Your task to perform on an android device: Search for lenovo thinkpad on ebay.com, select the first entry, and add it to the cart. Image 0: 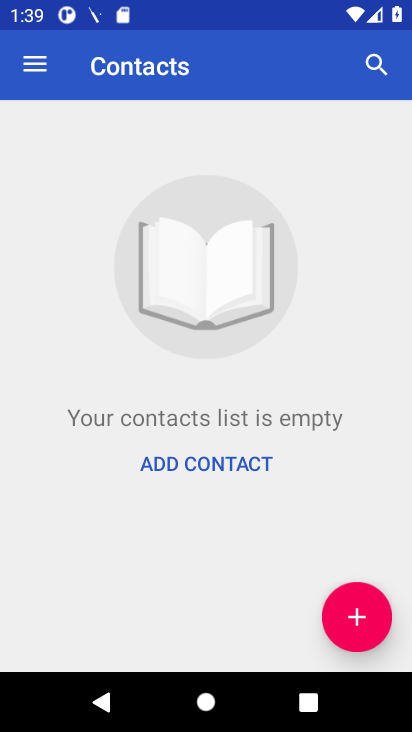
Step 0: press home button
Your task to perform on an android device: Search for lenovo thinkpad on ebay.com, select the first entry, and add it to the cart. Image 1: 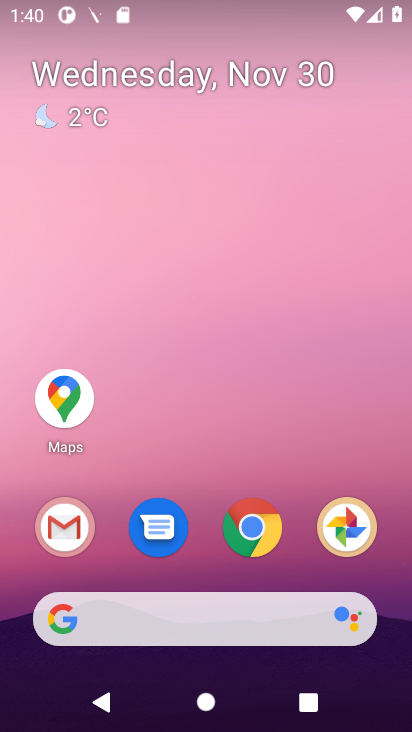
Step 1: click (245, 546)
Your task to perform on an android device: Search for lenovo thinkpad on ebay.com, select the first entry, and add it to the cart. Image 2: 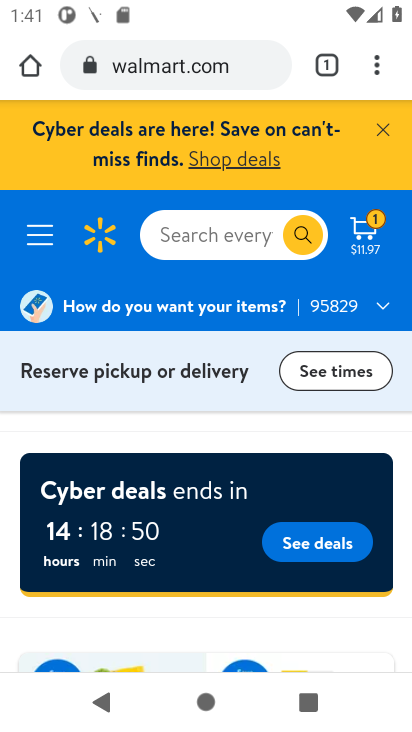
Step 2: click (169, 229)
Your task to perform on an android device: Search for lenovo thinkpad on ebay.com, select the first entry, and add it to the cart. Image 3: 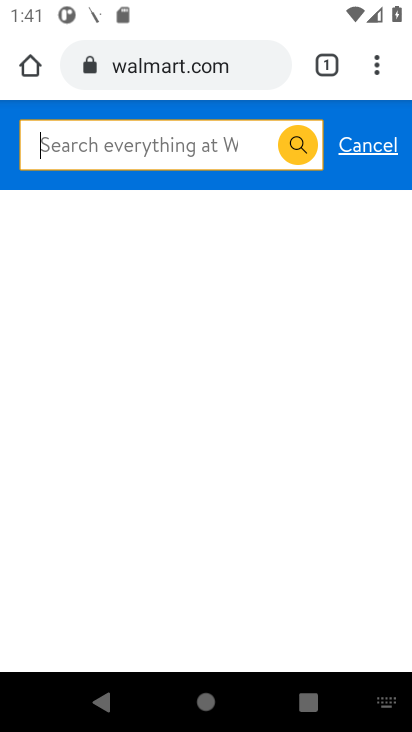
Step 3: type "lenovo thinkpad"
Your task to perform on an android device: Search for lenovo thinkpad on ebay.com, select the first entry, and add it to the cart. Image 4: 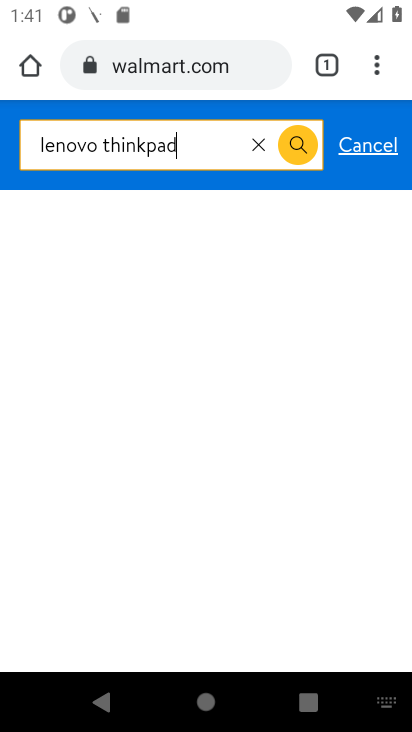
Step 4: click (296, 151)
Your task to perform on an android device: Search for lenovo thinkpad on ebay.com, select the first entry, and add it to the cart. Image 5: 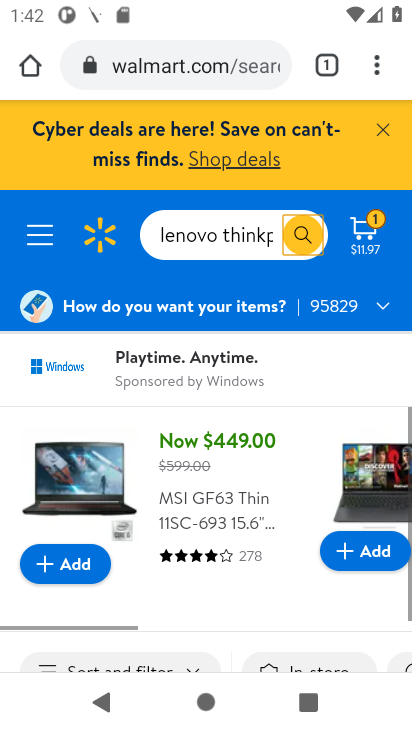
Step 5: task complete